Your task to perform on an android device: turn vacation reply on in the gmail app Image 0: 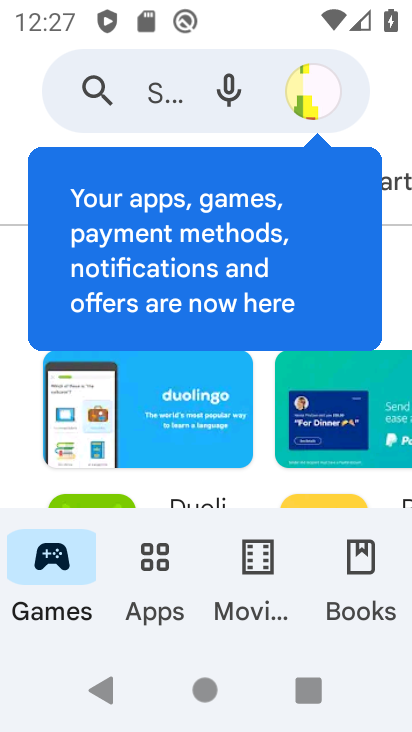
Step 0: press back button
Your task to perform on an android device: turn vacation reply on in the gmail app Image 1: 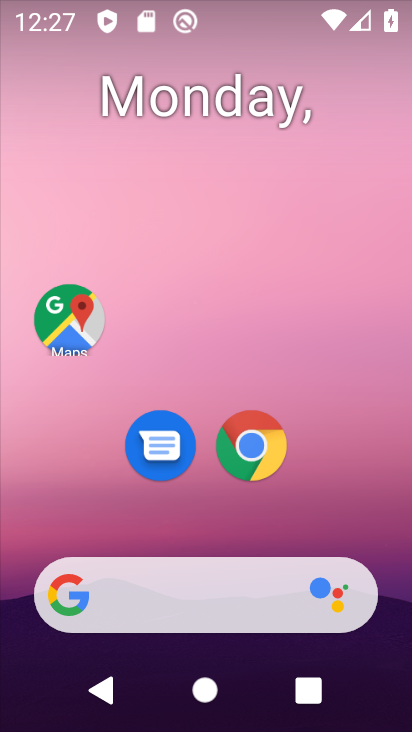
Step 1: drag from (352, 661) to (255, 26)
Your task to perform on an android device: turn vacation reply on in the gmail app Image 2: 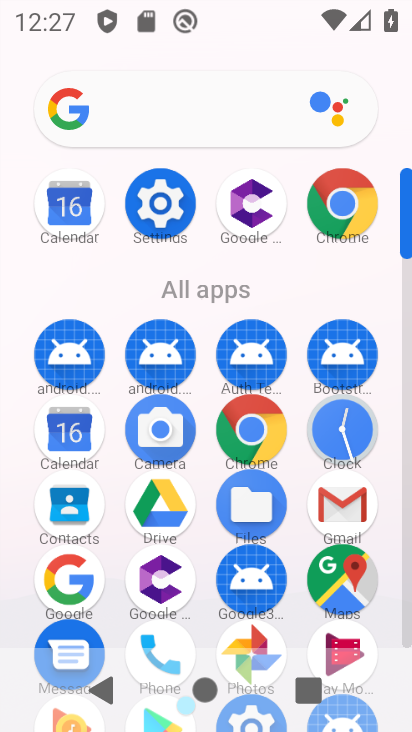
Step 2: click (322, 509)
Your task to perform on an android device: turn vacation reply on in the gmail app Image 3: 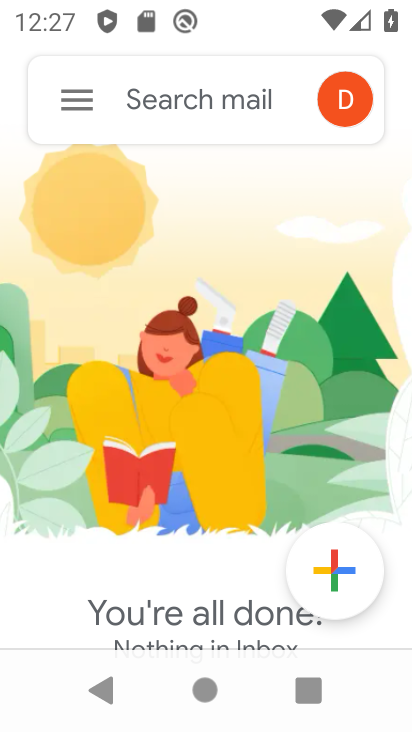
Step 3: drag from (187, 452) to (152, 177)
Your task to perform on an android device: turn vacation reply on in the gmail app Image 4: 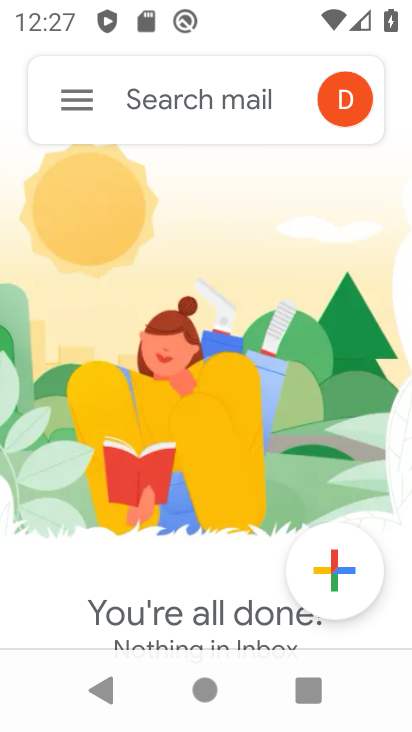
Step 4: drag from (198, 503) to (128, 58)
Your task to perform on an android device: turn vacation reply on in the gmail app Image 5: 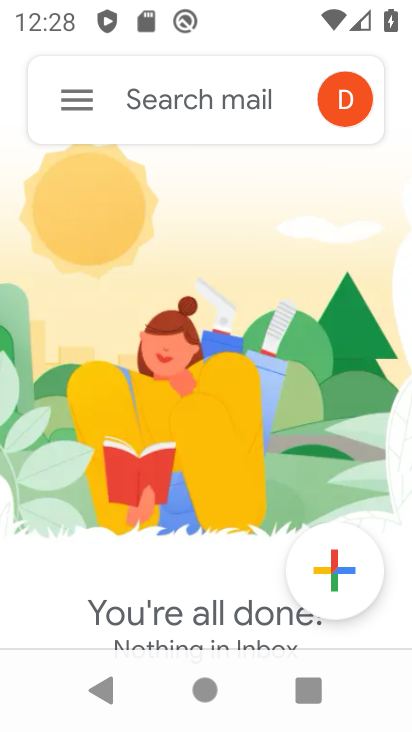
Step 5: click (215, 79)
Your task to perform on an android device: turn vacation reply on in the gmail app Image 6: 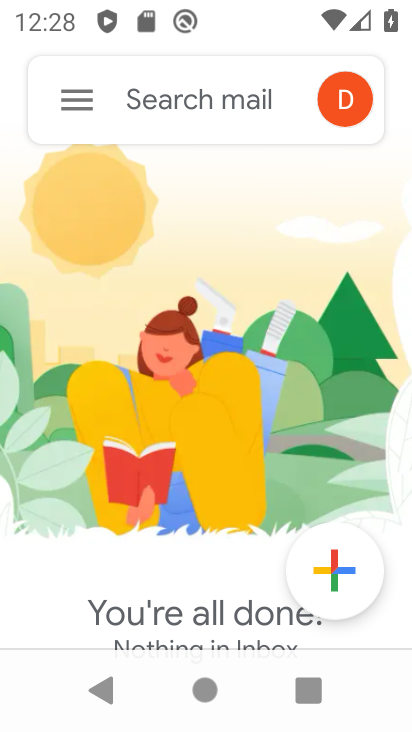
Step 6: drag from (227, 431) to (222, 108)
Your task to perform on an android device: turn vacation reply on in the gmail app Image 7: 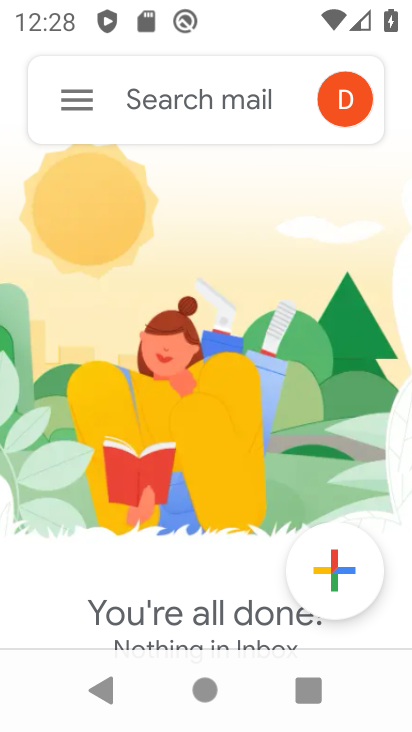
Step 7: click (76, 108)
Your task to perform on an android device: turn vacation reply on in the gmail app Image 8: 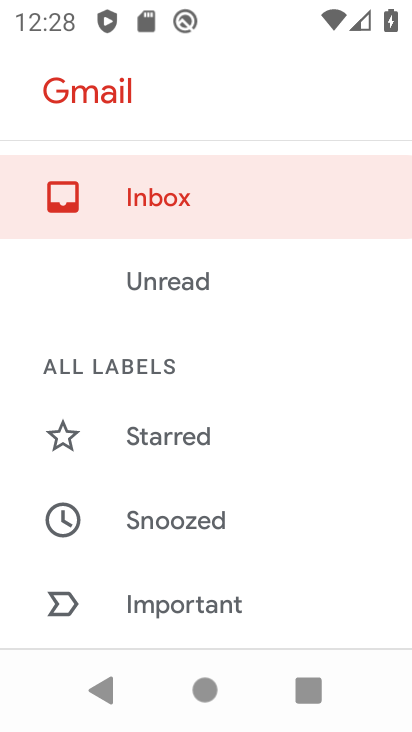
Step 8: drag from (174, 463) to (152, 39)
Your task to perform on an android device: turn vacation reply on in the gmail app Image 9: 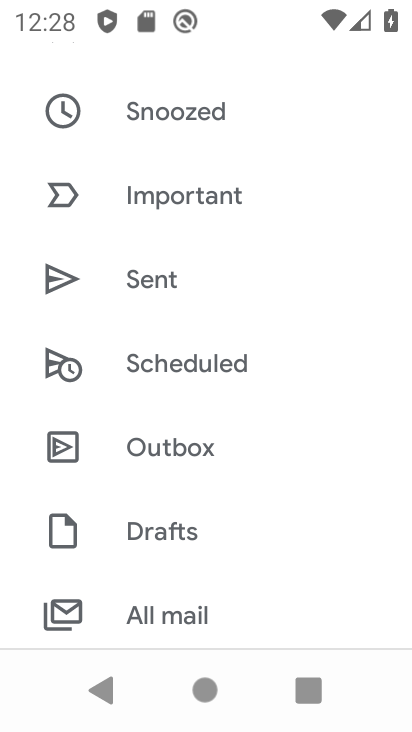
Step 9: drag from (146, 464) to (141, 269)
Your task to perform on an android device: turn vacation reply on in the gmail app Image 10: 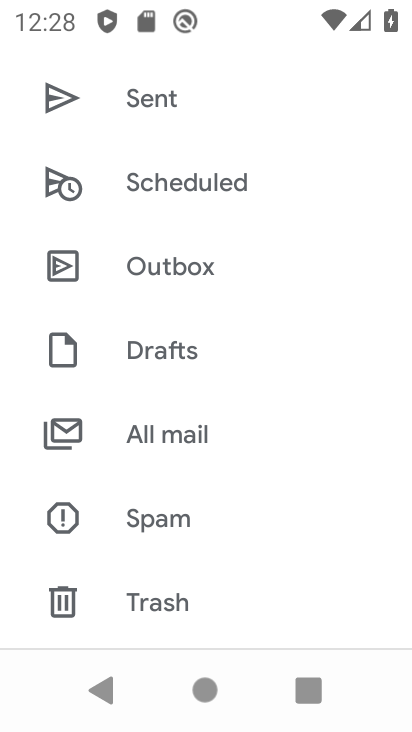
Step 10: drag from (159, 182) to (159, 93)
Your task to perform on an android device: turn vacation reply on in the gmail app Image 11: 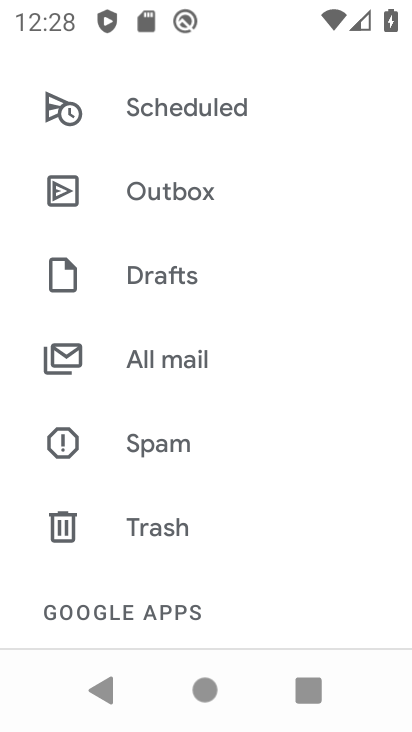
Step 11: drag from (189, 471) to (187, 315)
Your task to perform on an android device: turn vacation reply on in the gmail app Image 12: 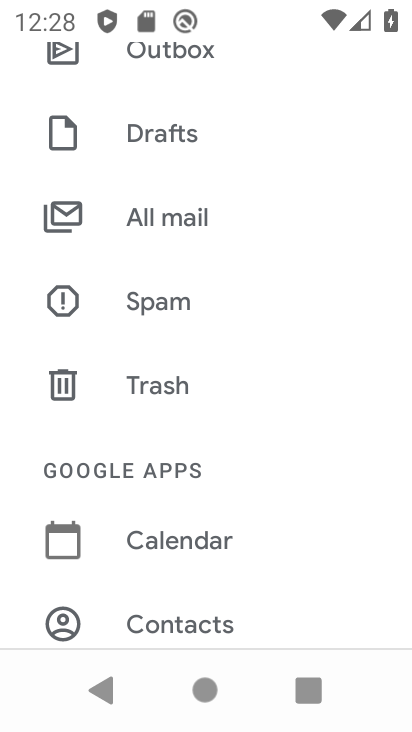
Step 12: drag from (213, 501) to (166, 47)
Your task to perform on an android device: turn vacation reply on in the gmail app Image 13: 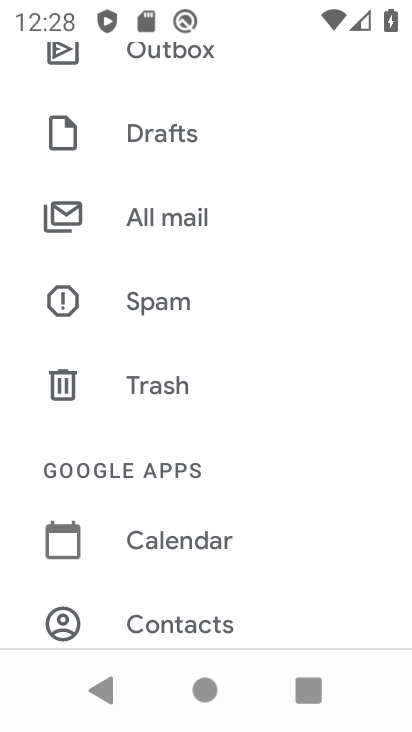
Step 13: drag from (197, 318) to (208, 87)
Your task to perform on an android device: turn vacation reply on in the gmail app Image 14: 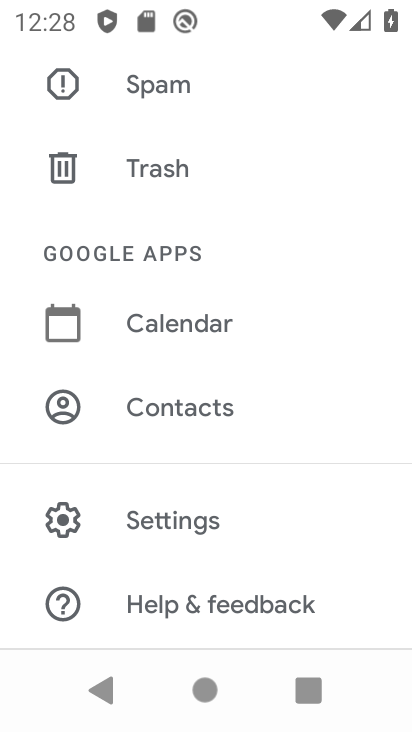
Step 14: click (161, 525)
Your task to perform on an android device: turn vacation reply on in the gmail app Image 15: 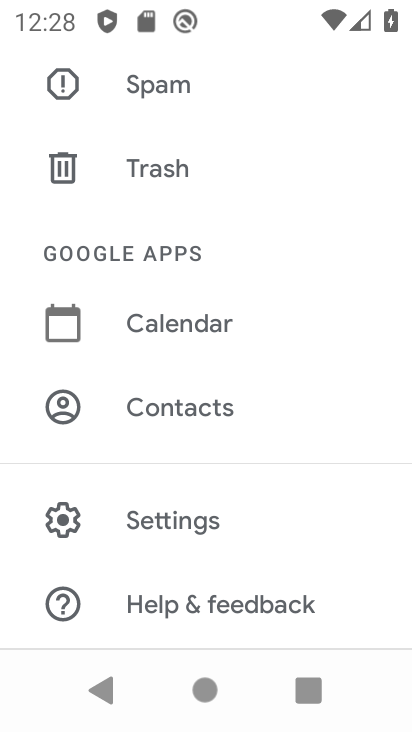
Step 15: click (162, 524)
Your task to perform on an android device: turn vacation reply on in the gmail app Image 16: 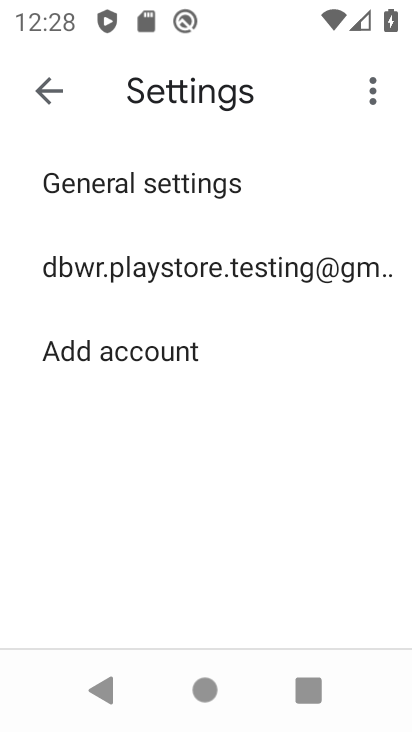
Step 16: click (152, 263)
Your task to perform on an android device: turn vacation reply on in the gmail app Image 17: 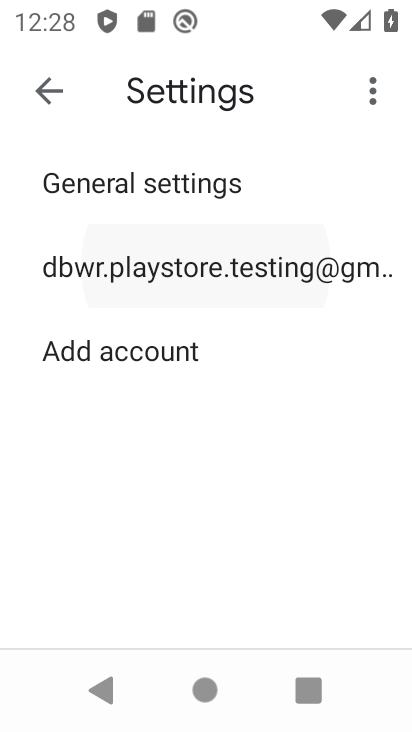
Step 17: click (154, 263)
Your task to perform on an android device: turn vacation reply on in the gmail app Image 18: 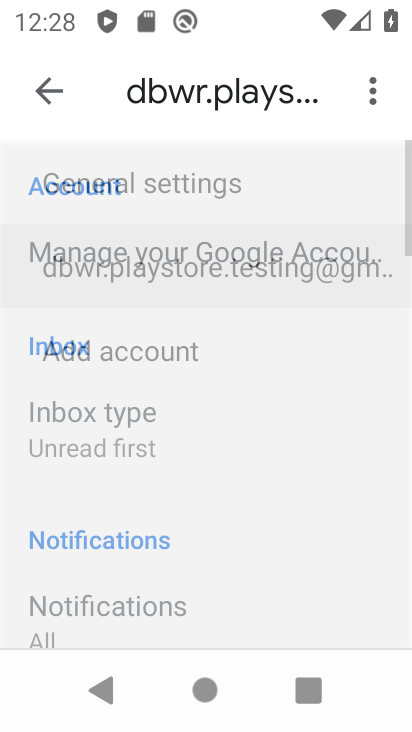
Step 18: click (155, 264)
Your task to perform on an android device: turn vacation reply on in the gmail app Image 19: 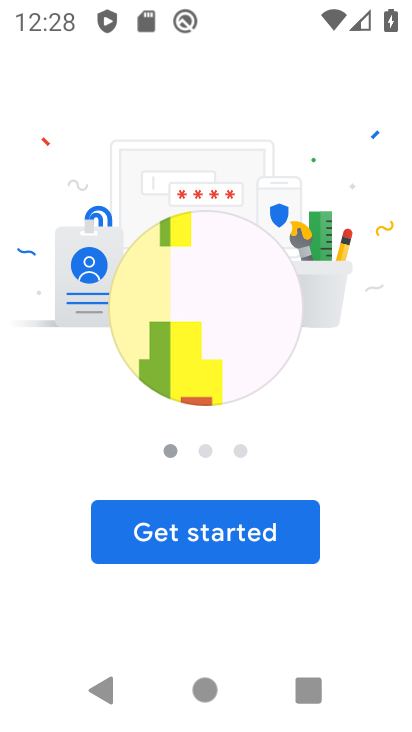
Step 19: press back button
Your task to perform on an android device: turn vacation reply on in the gmail app Image 20: 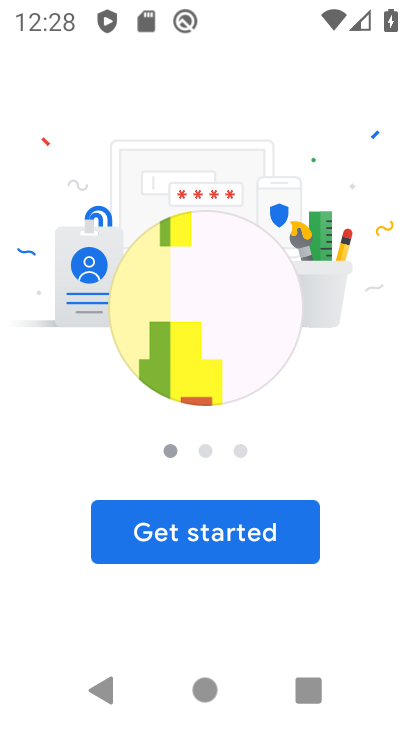
Step 20: press back button
Your task to perform on an android device: turn vacation reply on in the gmail app Image 21: 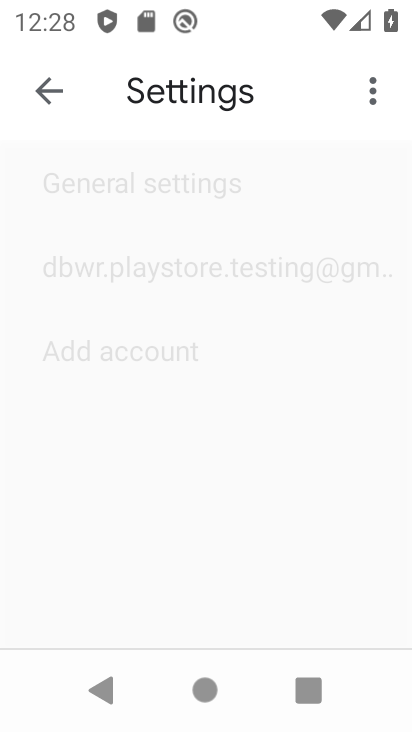
Step 21: press back button
Your task to perform on an android device: turn vacation reply on in the gmail app Image 22: 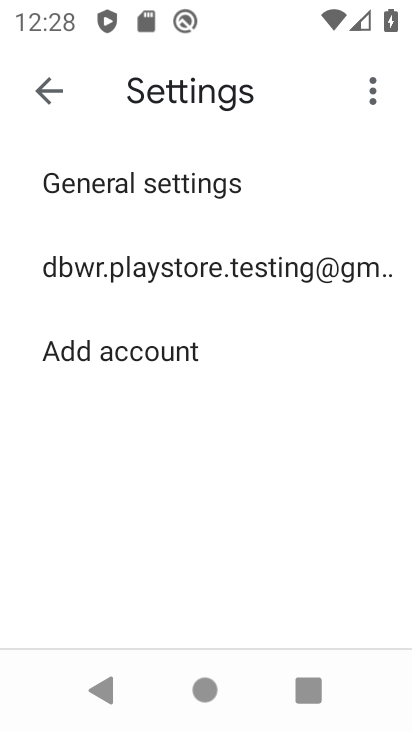
Step 22: press back button
Your task to perform on an android device: turn vacation reply on in the gmail app Image 23: 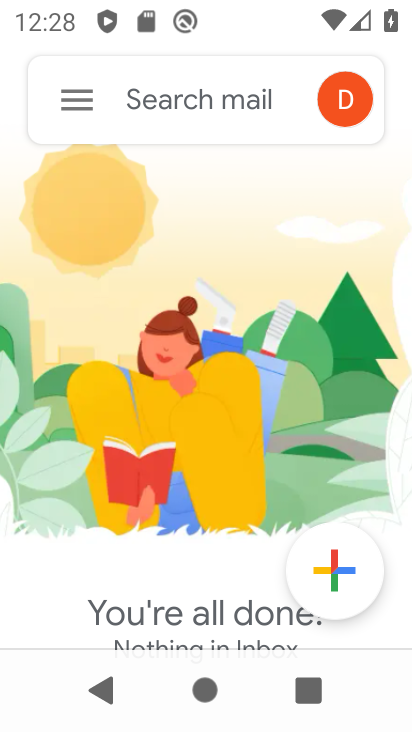
Step 23: drag from (178, 380) to (134, 264)
Your task to perform on an android device: turn vacation reply on in the gmail app Image 24: 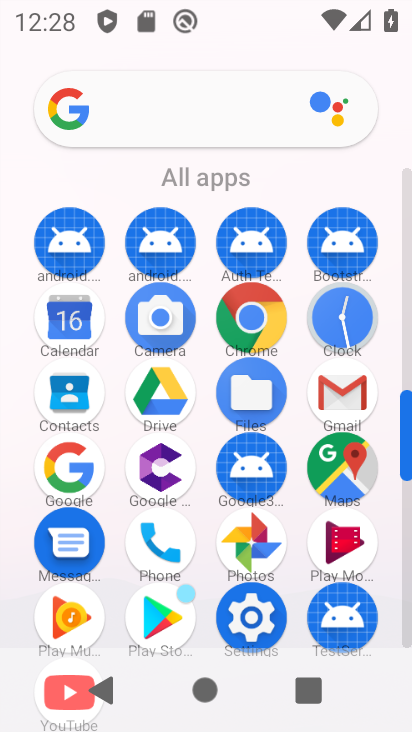
Step 24: click (351, 399)
Your task to perform on an android device: turn vacation reply on in the gmail app Image 25: 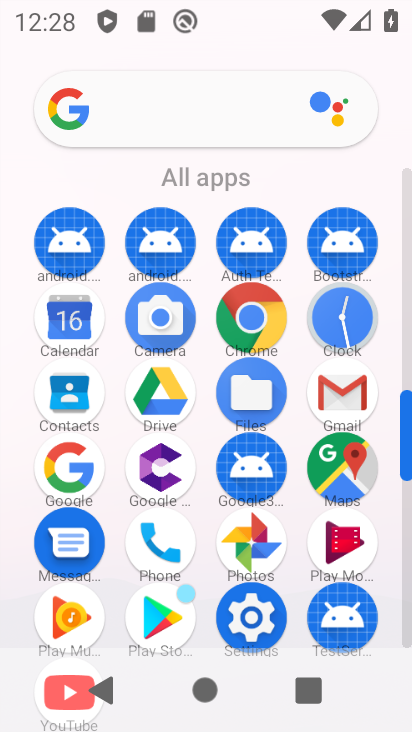
Step 25: click (351, 400)
Your task to perform on an android device: turn vacation reply on in the gmail app Image 26: 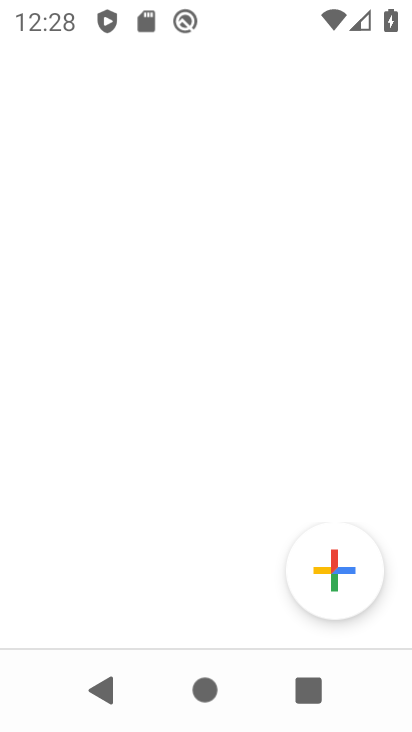
Step 26: click (347, 397)
Your task to perform on an android device: turn vacation reply on in the gmail app Image 27: 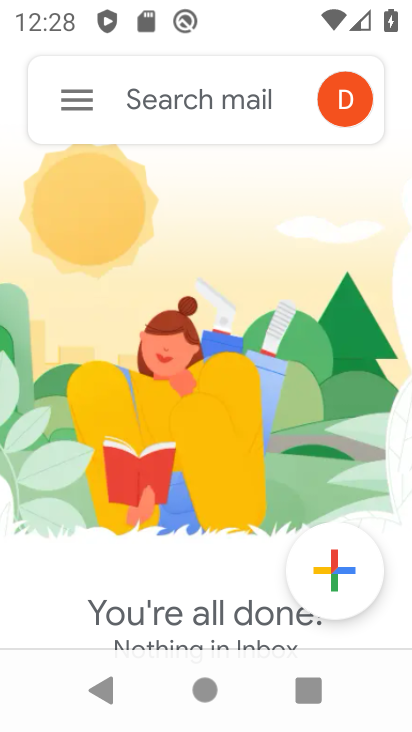
Step 27: drag from (211, 568) to (140, 34)
Your task to perform on an android device: turn vacation reply on in the gmail app Image 28: 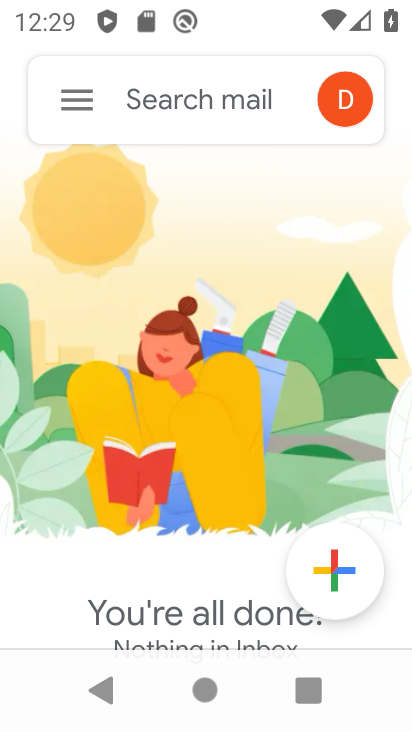
Step 28: click (73, 103)
Your task to perform on an android device: turn vacation reply on in the gmail app Image 29: 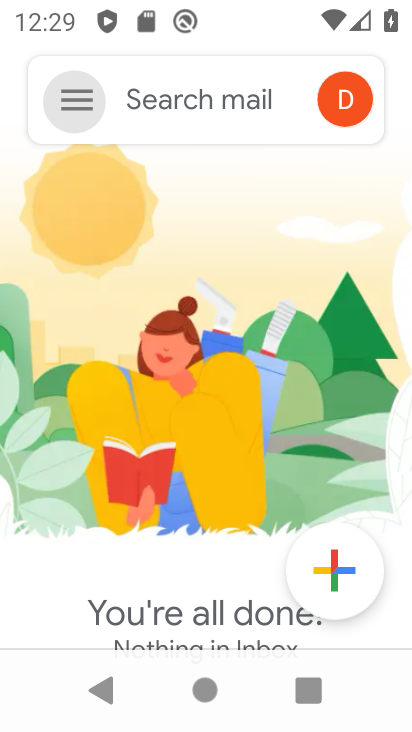
Step 29: click (72, 101)
Your task to perform on an android device: turn vacation reply on in the gmail app Image 30: 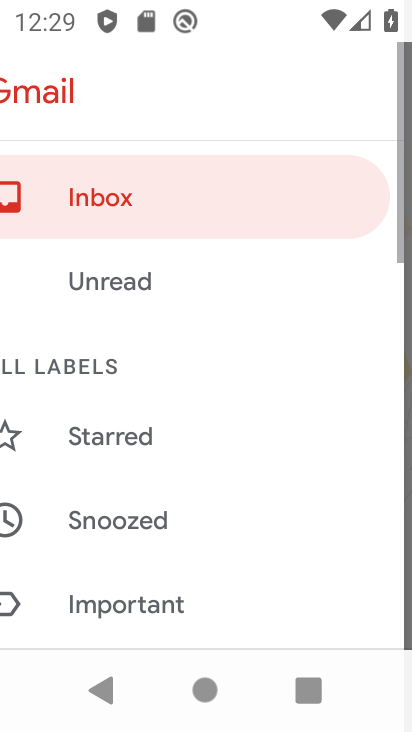
Step 30: click (72, 101)
Your task to perform on an android device: turn vacation reply on in the gmail app Image 31: 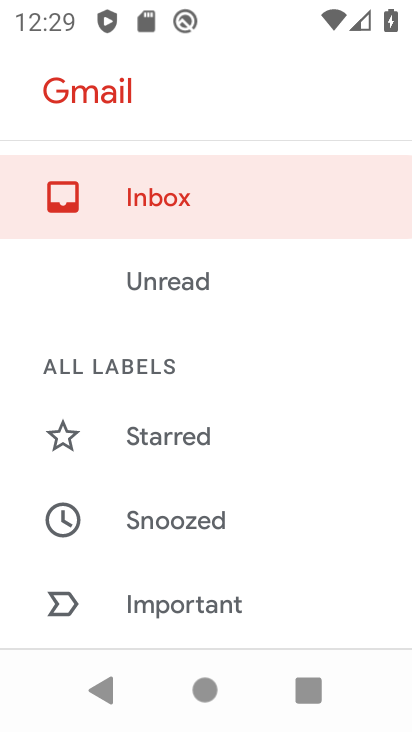
Step 31: drag from (178, 506) to (204, 106)
Your task to perform on an android device: turn vacation reply on in the gmail app Image 32: 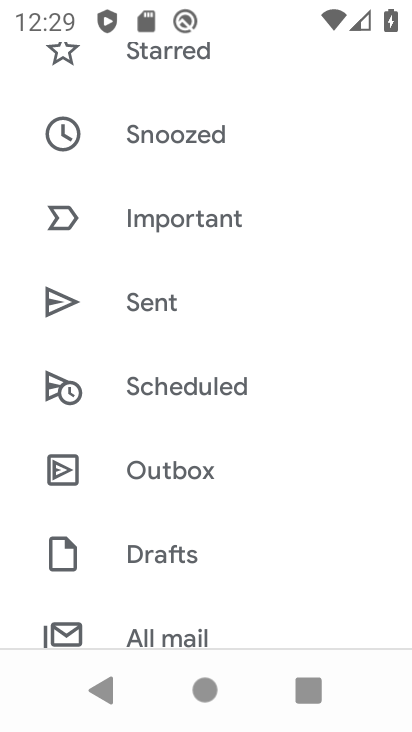
Step 32: drag from (149, 467) to (172, 125)
Your task to perform on an android device: turn vacation reply on in the gmail app Image 33: 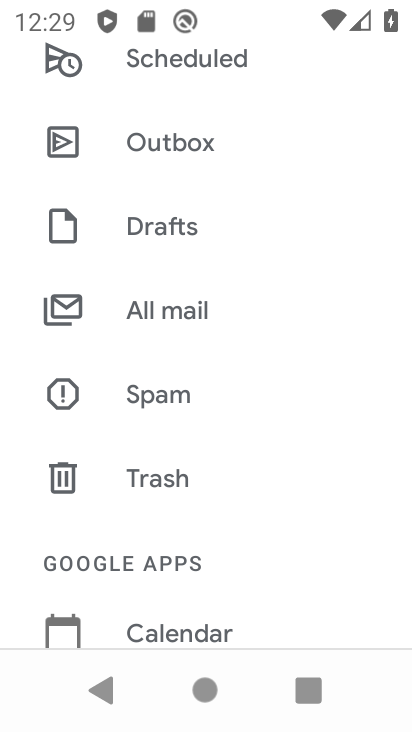
Step 33: click (162, 317)
Your task to perform on an android device: turn vacation reply on in the gmail app Image 34: 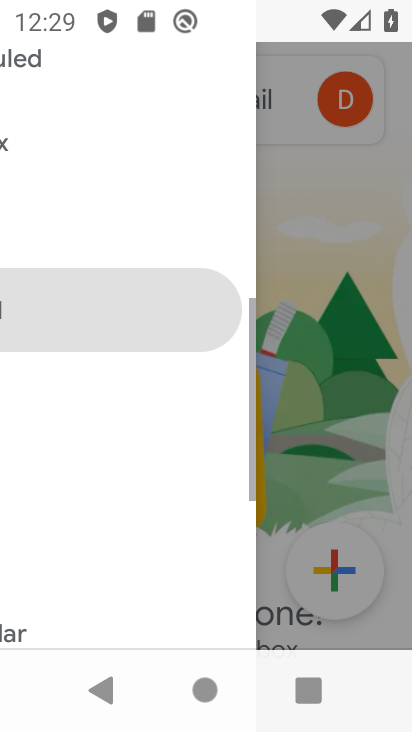
Step 34: click (162, 317)
Your task to perform on an android device: turn vacation reply on in the gmail app Image 35: 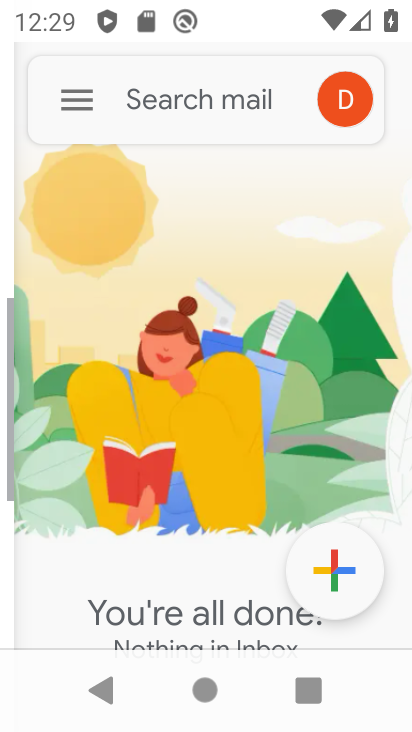
Step 35: click (160, 317)
Your task to perform on an android device: turn vacation reply on in the gmail app Image 36: 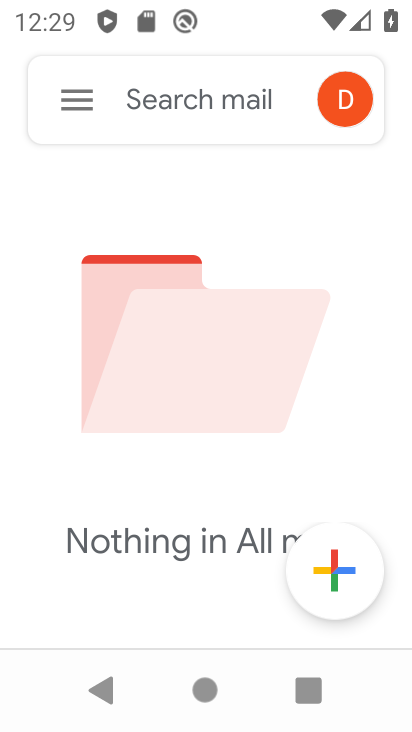
Step 36: task complete